Your task to perform on an android device: Open sound settings Image 0: 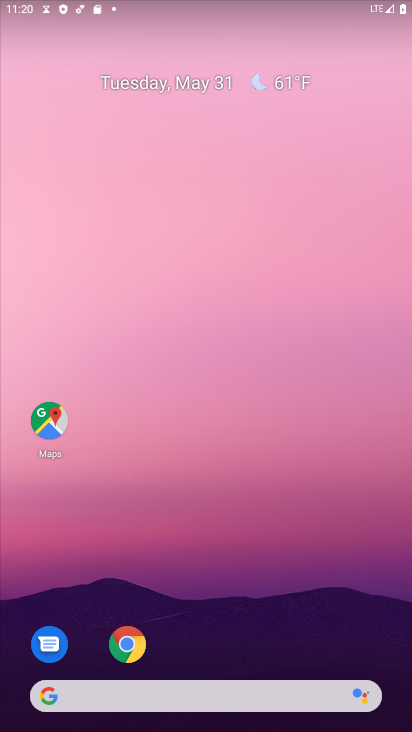
Step 0: drag from (227, 566) to (290, 126)
Your task to perform on an android device: Open sound settings Image 1: 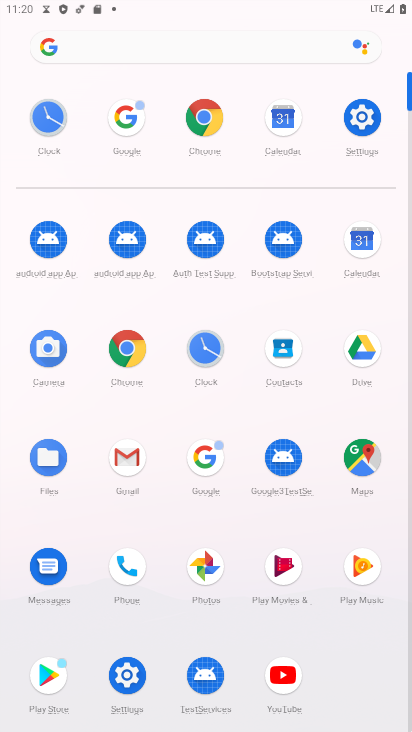
Step 1: click (372, 111)
Your task to perform on an android device: Open sound settings Image 2: 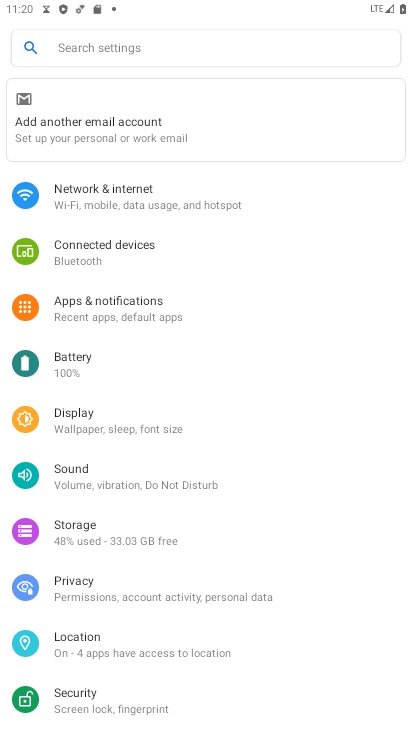
Step 2: click (108, 473)
Your task to perform on an android device: Open sound settings Image 3: 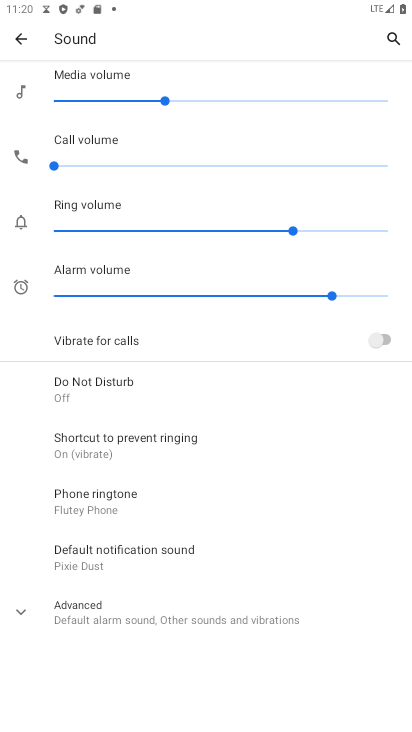
Step 3: task complete